Your task to perform on an android device: Check the weather Image 0: 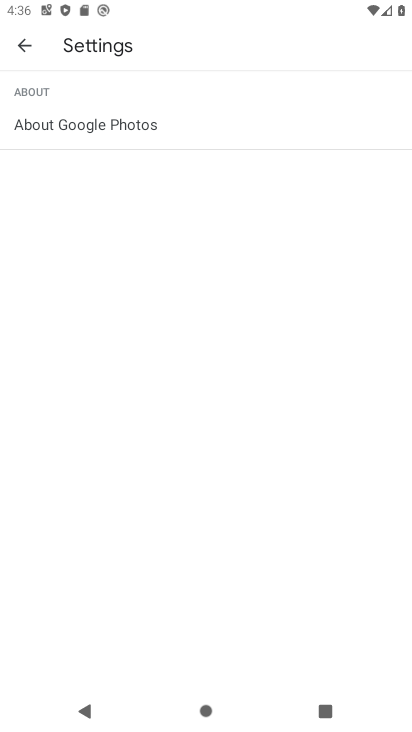
Step 0: press back button
Your task to perform on an android device: Check the weather Image 1: 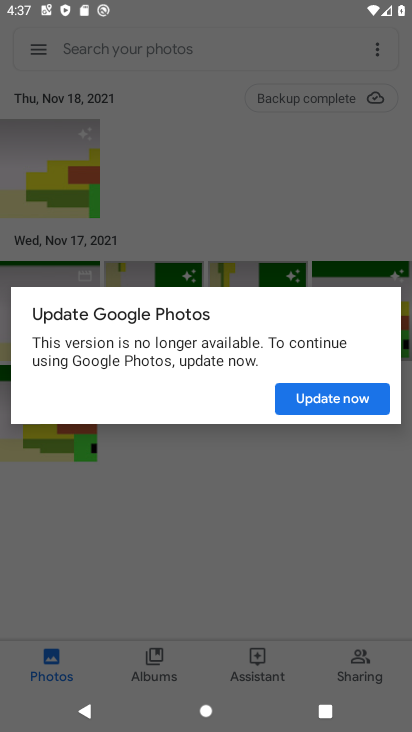
Step 1: press home button
Your task to perform on an android device: Check the weather Image 2: 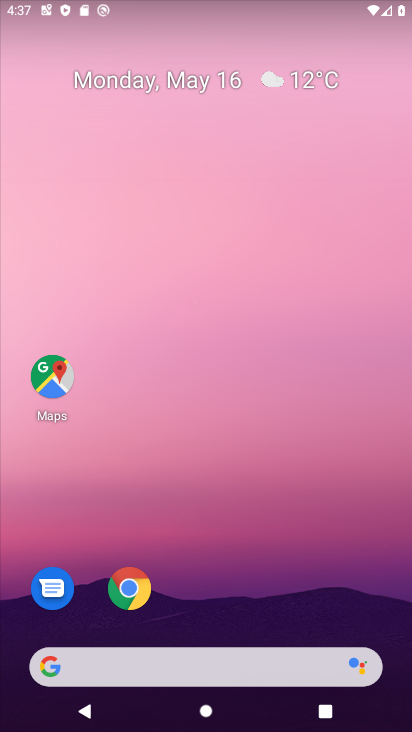
Step 2: click (282, 80)
Your task to perform on an android device: Check the weather Image 3: 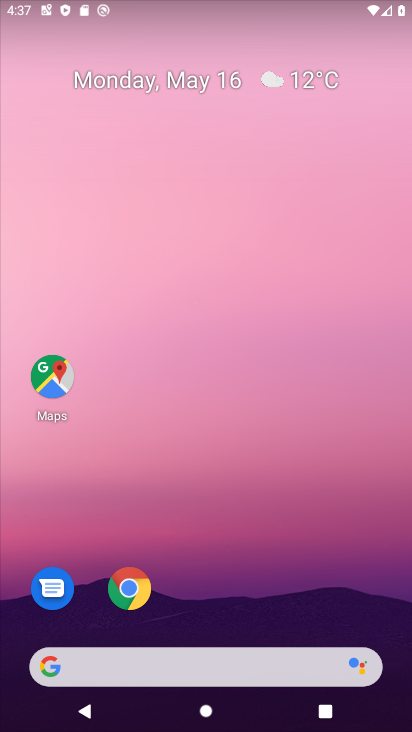
Step 3: click (265, 76)
Your task to perform on an android device: Check the weather Image 4: 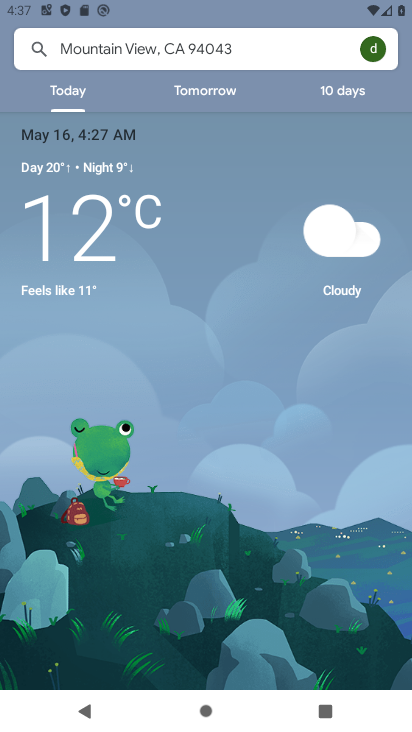
Step 4: task complete